Your task to perform on an android device: toggle improve location accuracy Image 0: 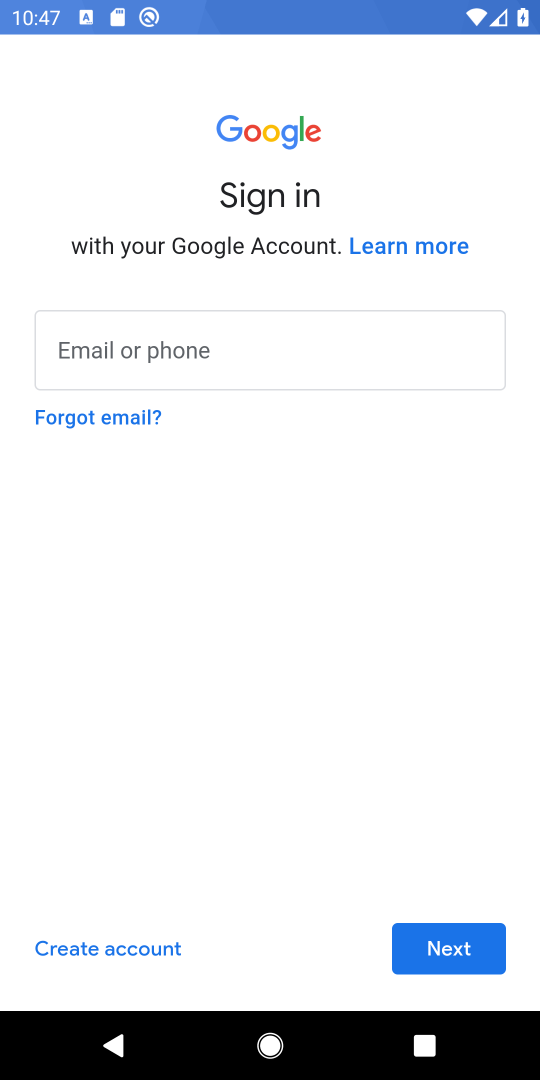
Step 0: press back button
Your task to perform on an android device: toggle improve location accuracy Image 1: 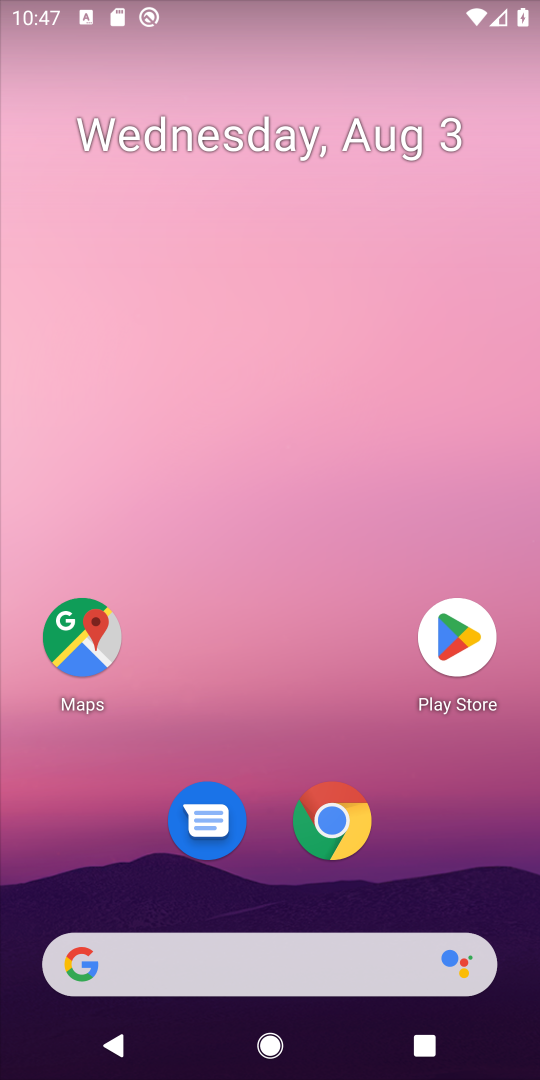
Step 1: drag from (357, 968) to (338, 83)
Your task to perform on an android device: toggle improve location accuracy Image 2: 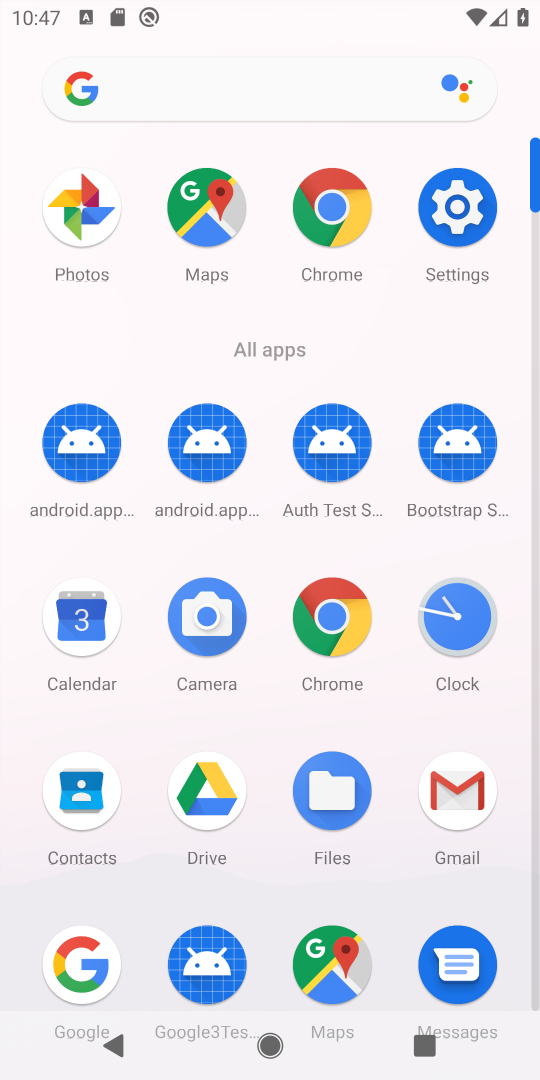
Step 2: drag from (246, 936) to (253, 233)
Your task to perform on an android device: toggle improve location accuracy Image 3: 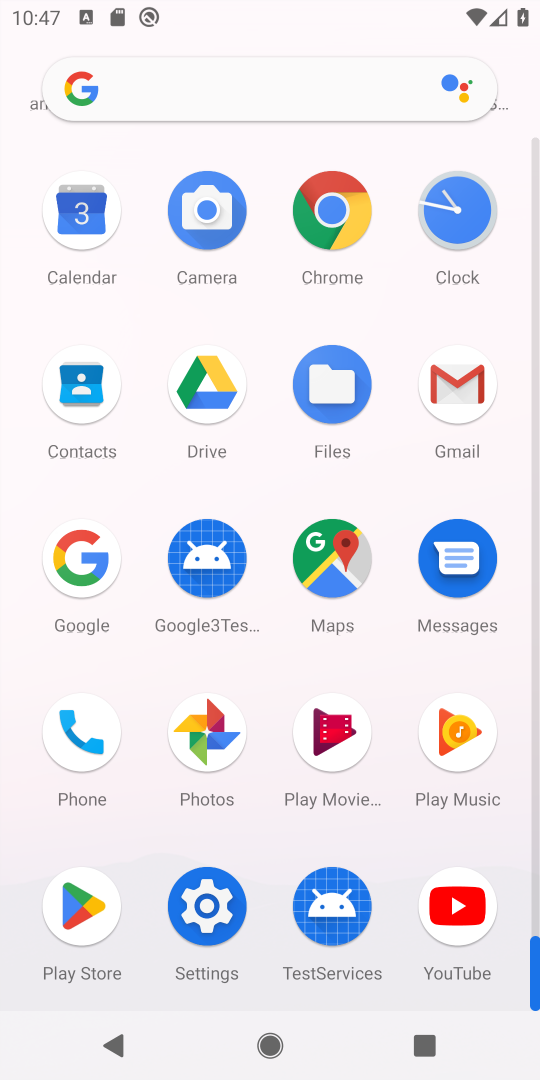
Step 3: click (213, 910)
Your task to perform on an android device: toggle improve location accuracy Image 4: 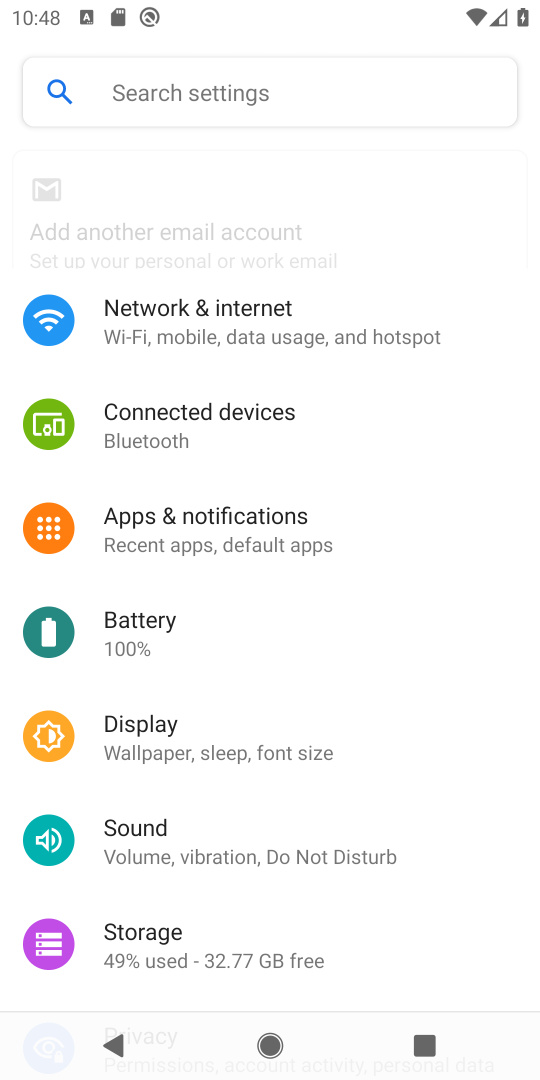
Step 4: drag from (246, 819) to (326, 74)
Your task to perform on an android device: toggle improve location accuracy Image 5: 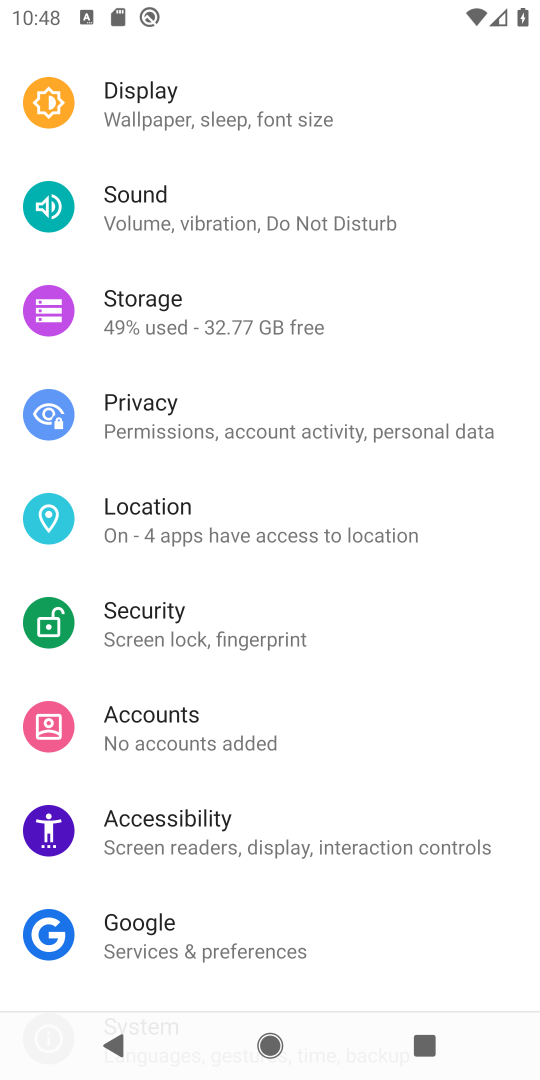
Step 5: click (173, 510)
Your task to perform on an android device: toggle improve location accuracy Image 6: 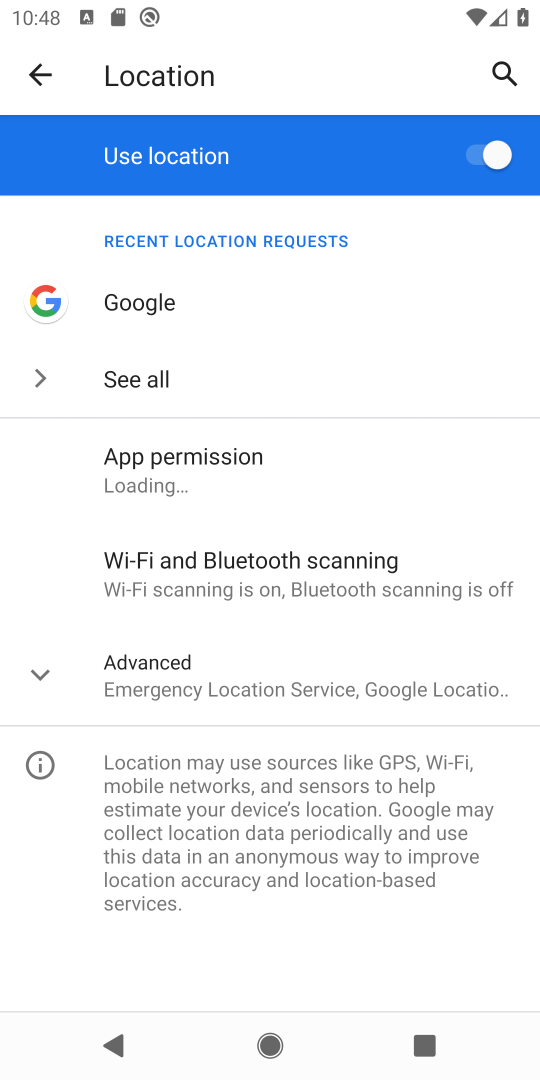
Step 6: click (217, 670)
Your task to perform on an android device: toggle improve location accuracy Image 7: 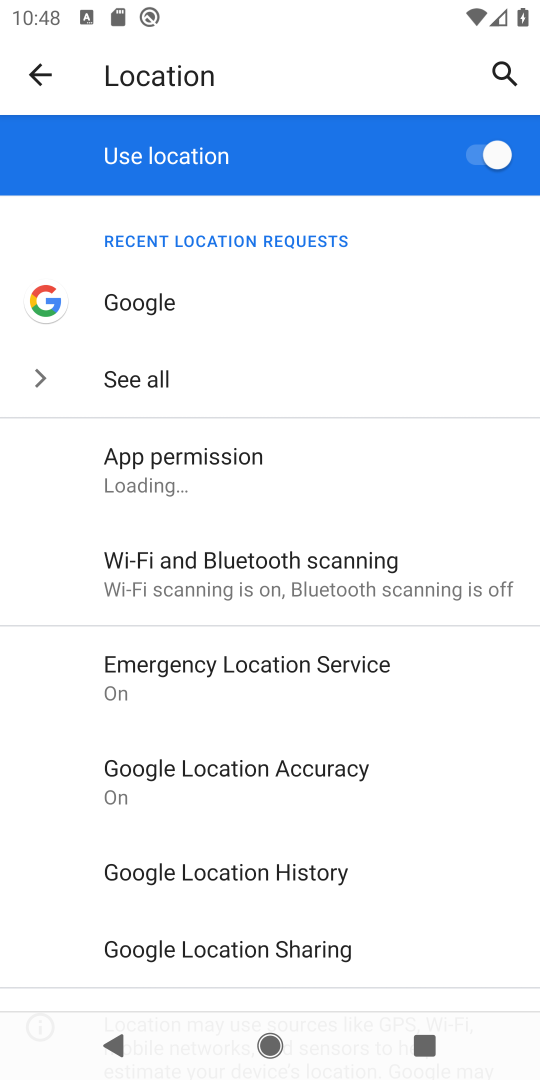
Step 7: click (344, 769)
Your task to perform on an android device: toggle improve location accuracy Image 8: 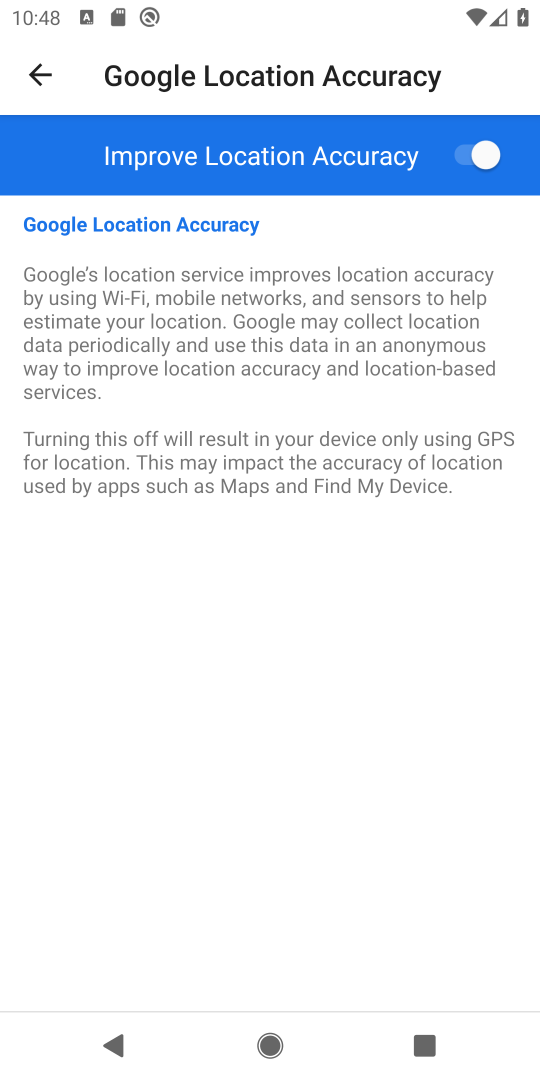
Step 8: click (490, 147)
Your task to perform on an android device: toggle improve location accuracy Image 9: 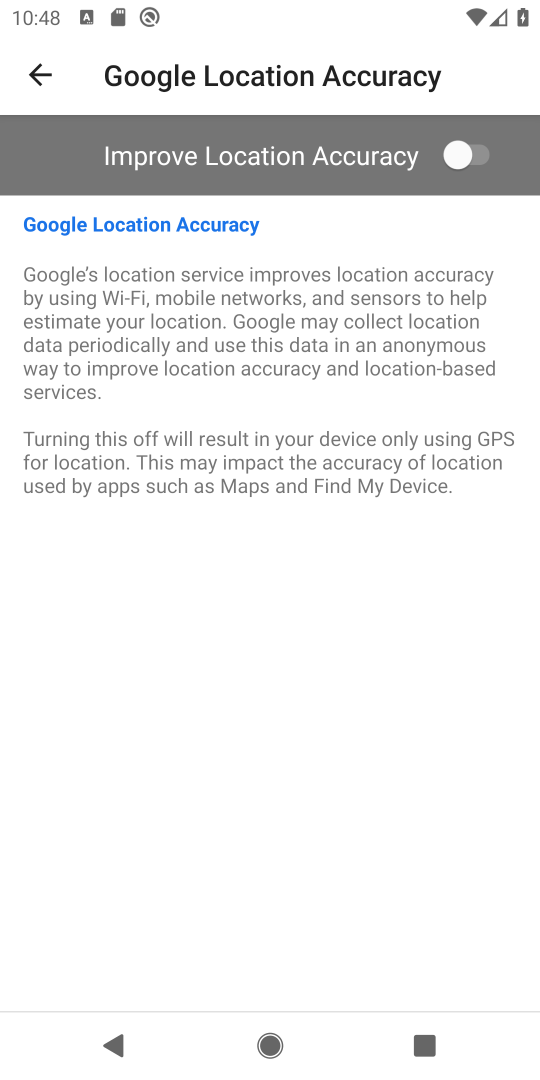
Step 9: task complete